Your task to perform on an android device: delete browsing data in the chrome app Image 0: 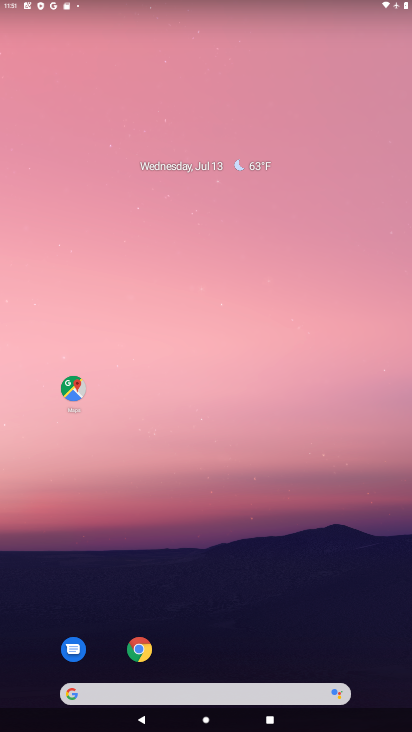
Step 0: drag from (204, 657) to (196, 228)
Your task to perform on an android device: delete browsing data in the chrome app Image 1: 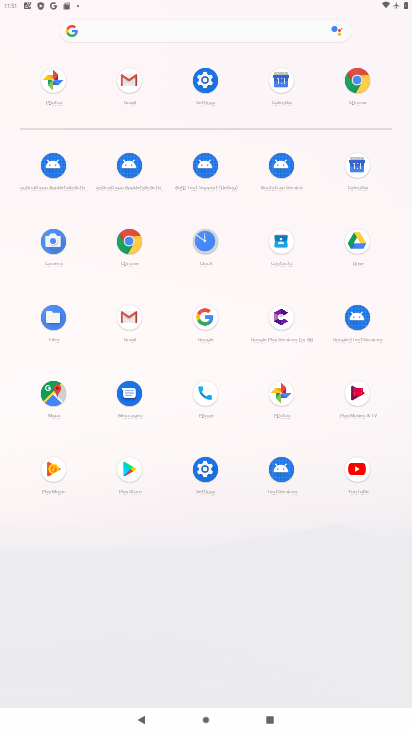
Step 1: click (360, 75)
Your task to perform on an android device: delete browsing data in the chrome app Image 2: 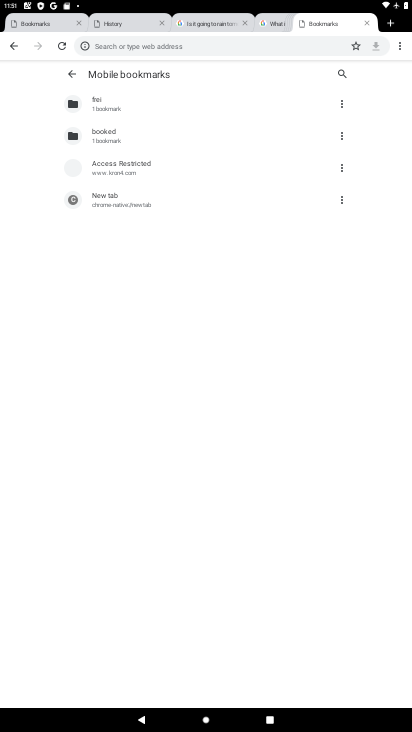
Step 2: click (404, 34)
Your task to perform on an android device: delete browsing data in the chrome app Image 3: 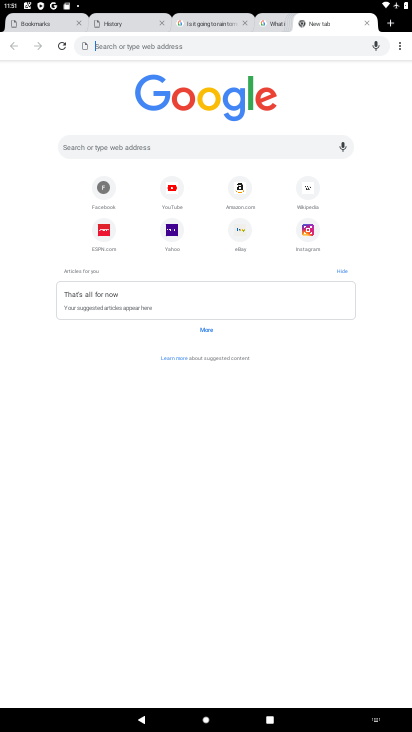
Step 3: click (393, 40)
Your task to perform on an android device: delete browsing data in the chrome app Image 4: 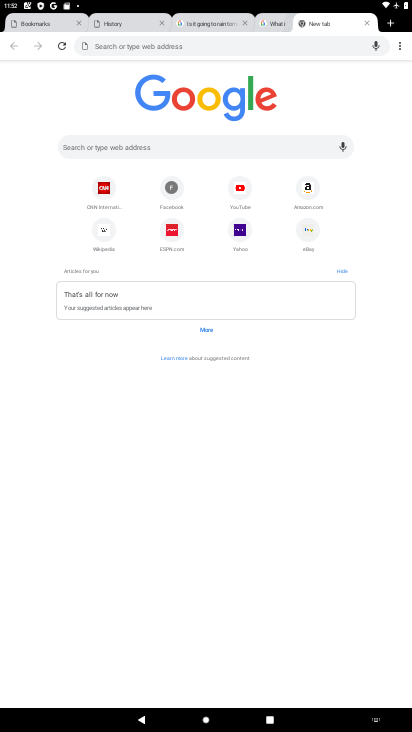
Step 4: click (403, 47)
Your task to perform on an android device: delete browsing data in the chrome app Image 5: 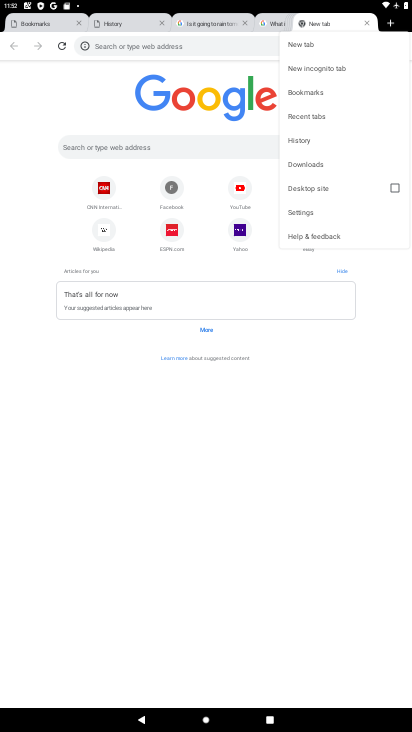
Step 5: click (306, 215)
Your task to perform on an android device: delete browsing data in the chrome app Image 6: 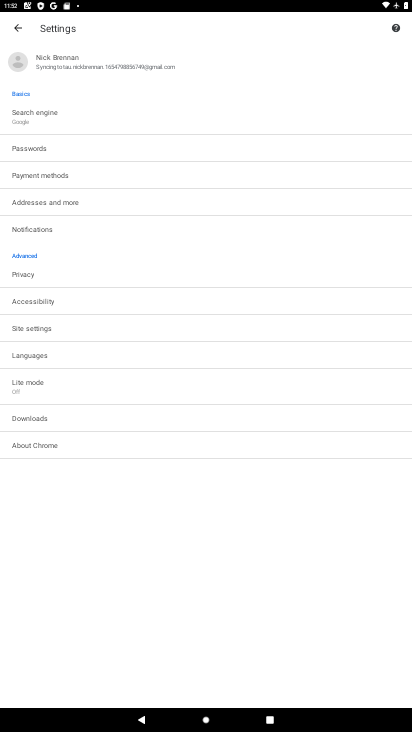
Step 6: click (68, 271)
Your task to perform on an android device: delete browsing data in the chrome app Image 7: 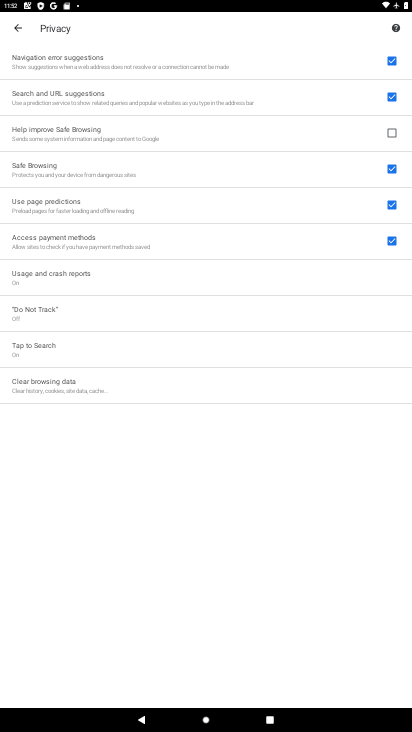
Step 7: click (106, 375)
Your task to perform on an android device: delete browsing data in the chrome app Image 8: 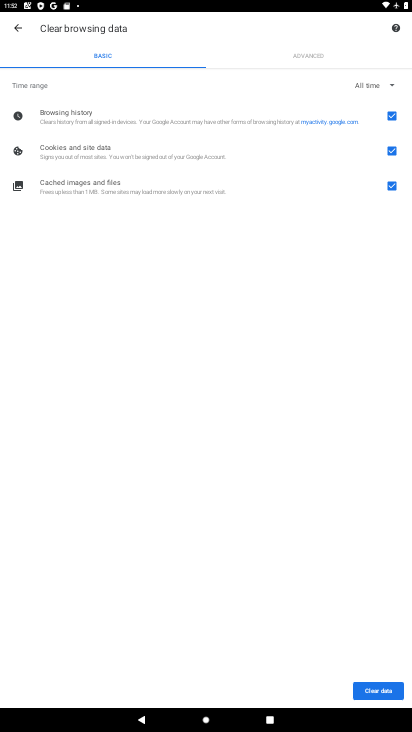
Step 8: click (388, 692)
Your task to perform on an android device: delete browsing data in the chrome app Image 9: 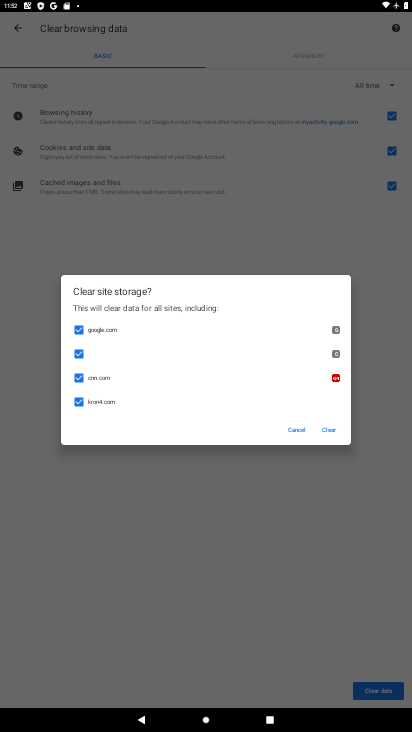
Step 9: click (334, 431)
Your task to perform on an android device: delete browsing data in the chrome app Image 10: 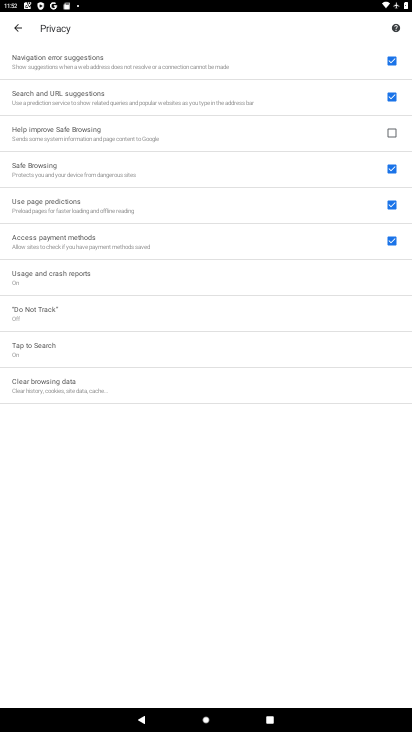
Step 10: task complete